Your task to perform on an android device: delete a single message in the gmail app Image 0: 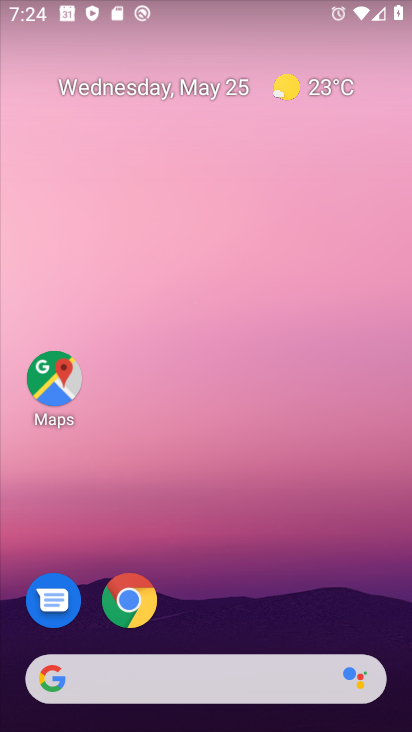
Step 0: drag from (274, 628) to (204, 43)
Your task to perform on an android device: delete a single message in the gmail app Image 1: 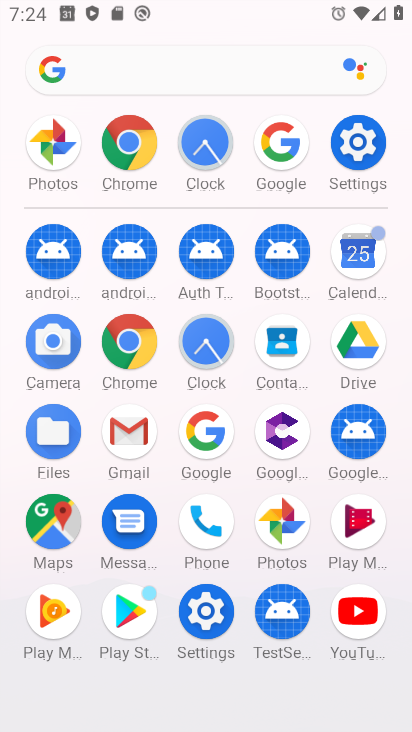
Step 1: click (131, 429)
Your task to perform on an android device: delete a single message in the gmail app Image 2: 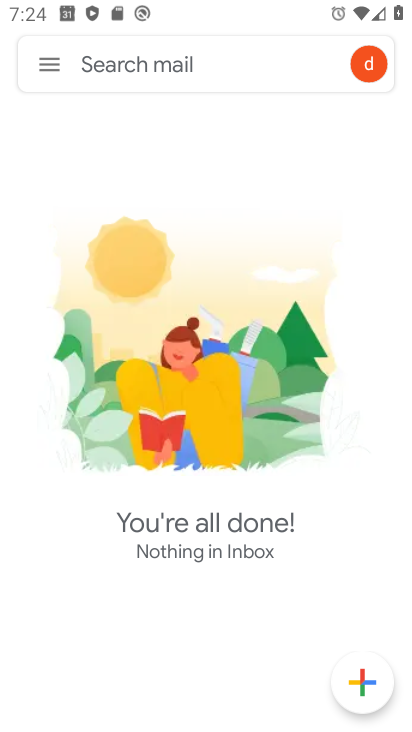
Step 2: click (52, 66)
Your task to perform on an android device: delete a single message in the gmail app Image 3: 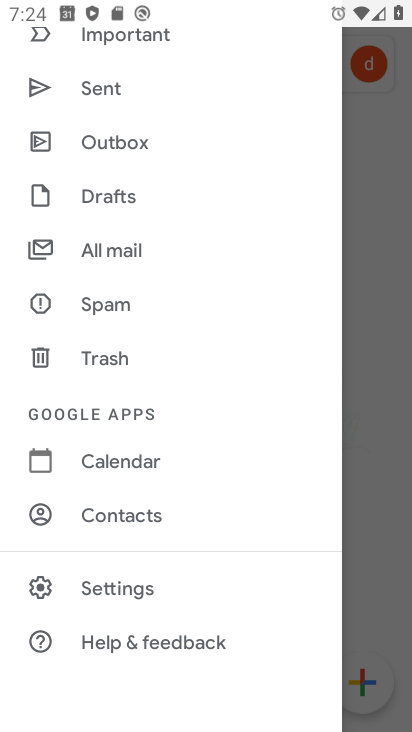
Step 3: click (123, 256)
Your task to perform on an android device: delete a single message in the gmail app Image 4: 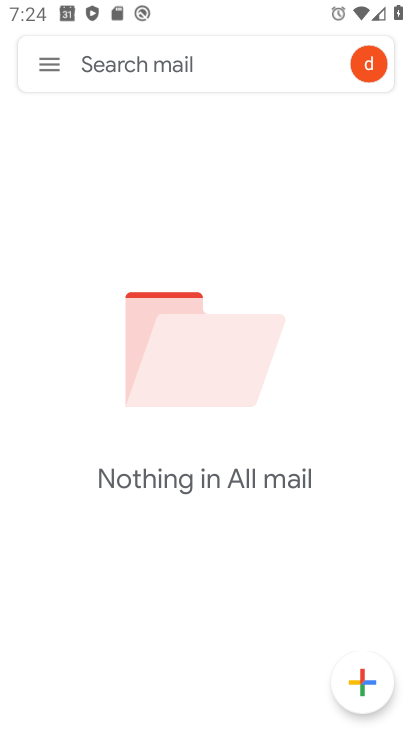
Step 4: click (57, 69)
Your task to perform on an android device: delete a single message in the gmail app Image 5: 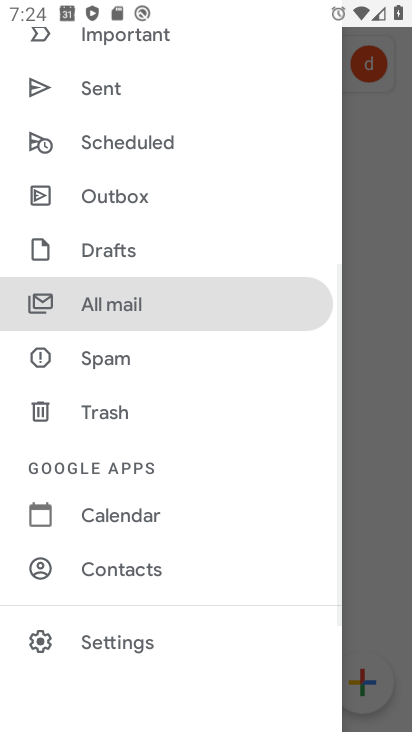
Step 5: drag from (163, 247) to (182, 336)
Your task to perform on an android device: delete a single message in the gmail app Image 6: 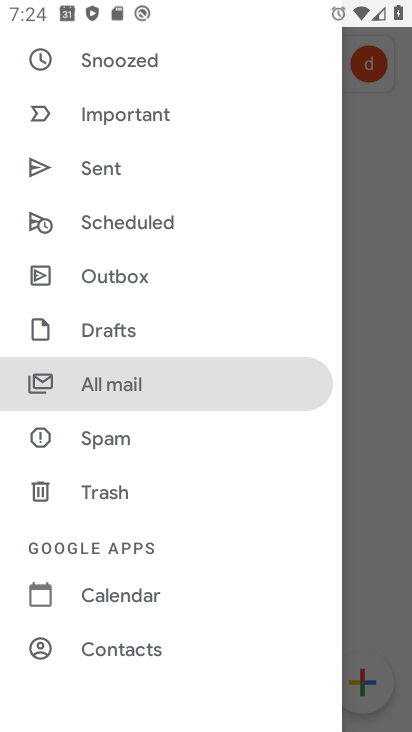
Step 6: drag from (155, 198) to (188, 307)
Your task to perform on an android device: delete a single message in the gmail app Image 7: 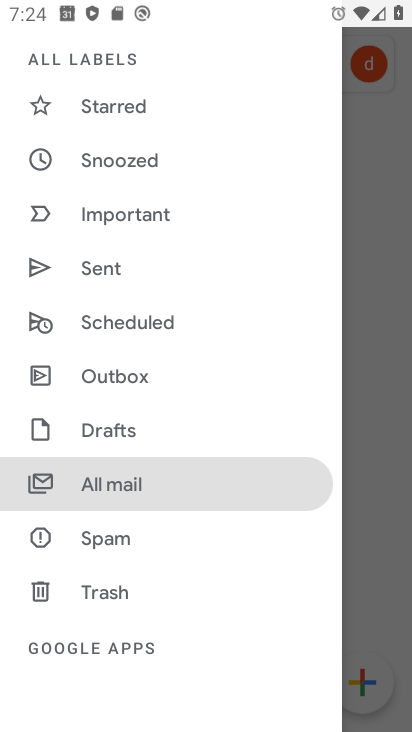
Step 7: drag from (134, 168) to (192, 279)
Your task to perform on an android device: delete a single message in the gmail app Image 8: 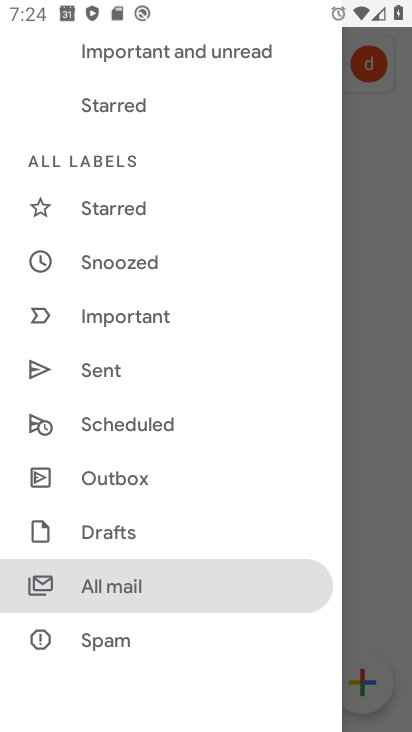
Step 8: drag from (168, 190) to (185, 272)
Your task to perform on an android device: delete a single message in the gmail app Image 9: 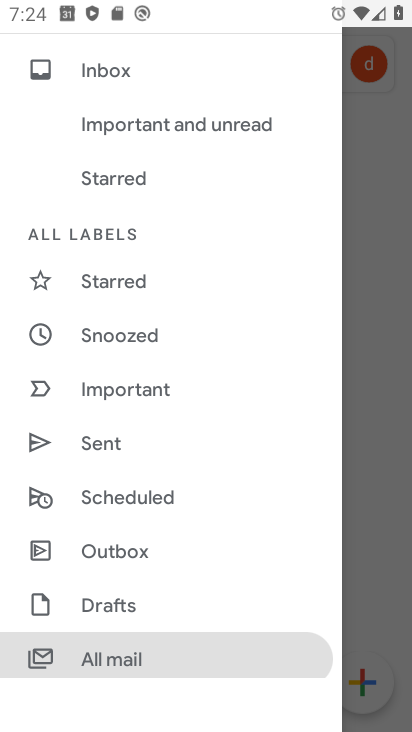
Step 9: click (103, 74)
Your task to perform on an android device: delete a single message in the gmail app Image 10: 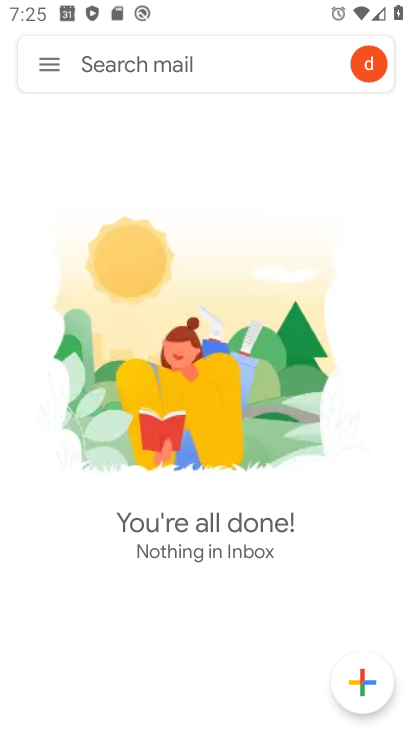
Step 10: click (40, 59)
Your task to perform on an android device: delete a single message in the gmail app Image 11: 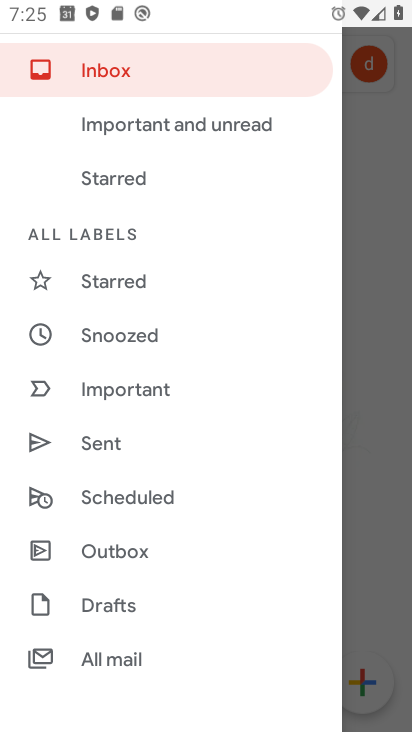
Step 11: drag from (109, 569) to (125, 468)
Your task to perform on an android device: delete a single message in the gmail app Image 12: 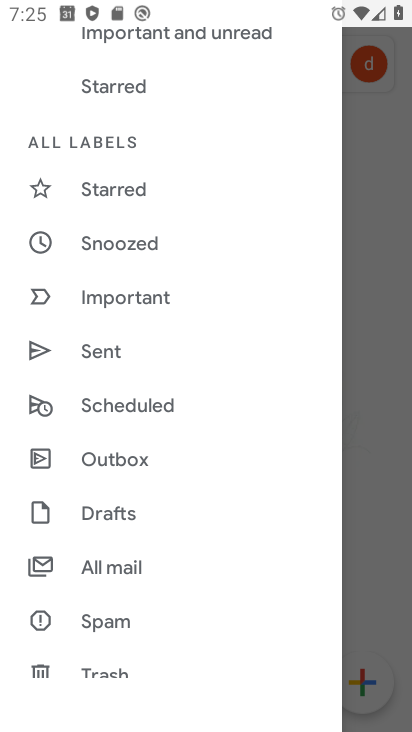
Step 12: drag from (123, 580) to (165, 486)
Your task to perform on an android device: delete a single message in the gmail app Image 13: 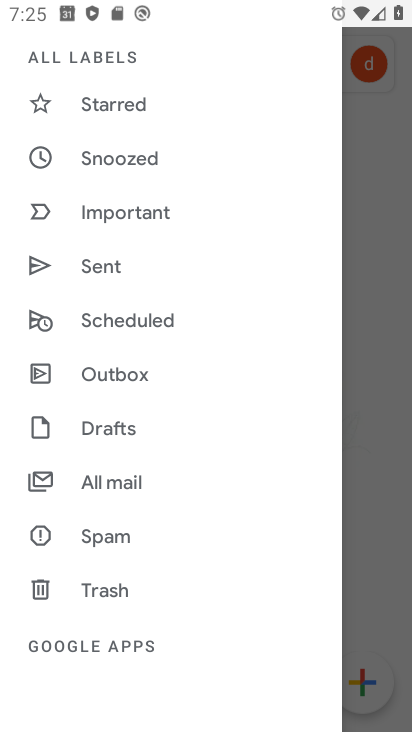
Step 13: click (102, 575)
Your task to perform on an android device: delete a single message in the gmail app Image 14: 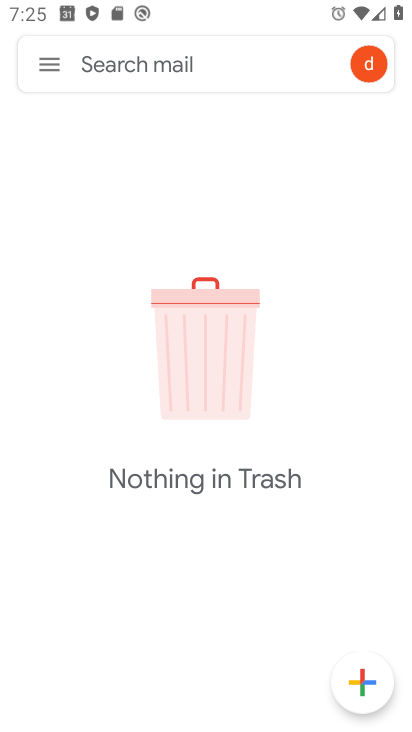
Step 14: task complete